Your task to perform on an android device: Open Google Image 0: 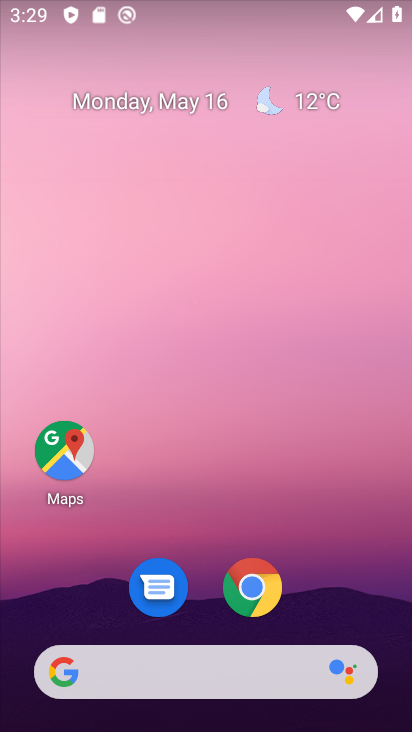
Step 0: drag from (100, 548) to (287, 94)
Your task to perform on an android device: Open Google Image 1: 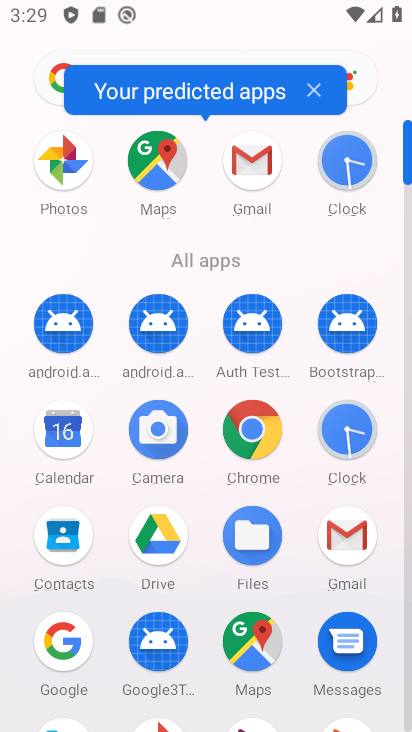
Step 1: click (66, 630)
Your task to perform on an android device: Open Google Image 2: 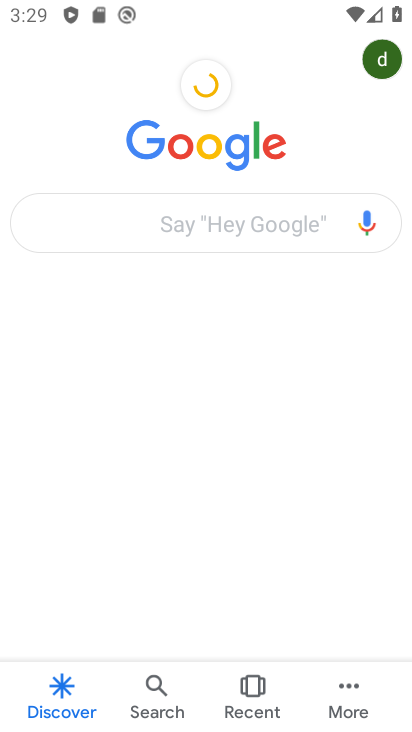
Step 2: task complete